Your task to perform on an android device: Search for sushi restaurants on Maps Image 0: 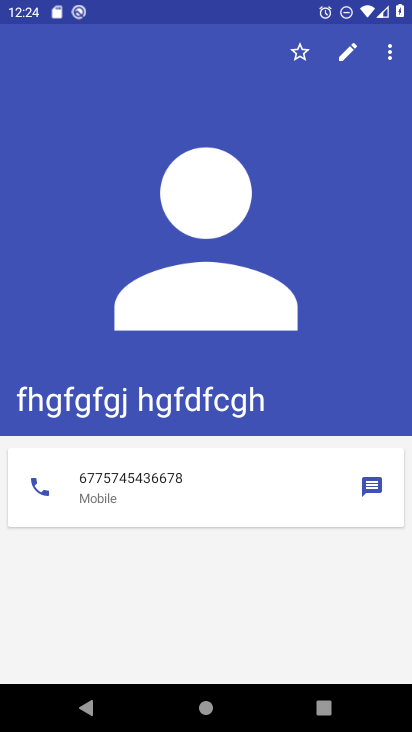
Step 0: press home button
Your task to perform on an android device: Search for sushi restaurants on Maps Image 1: 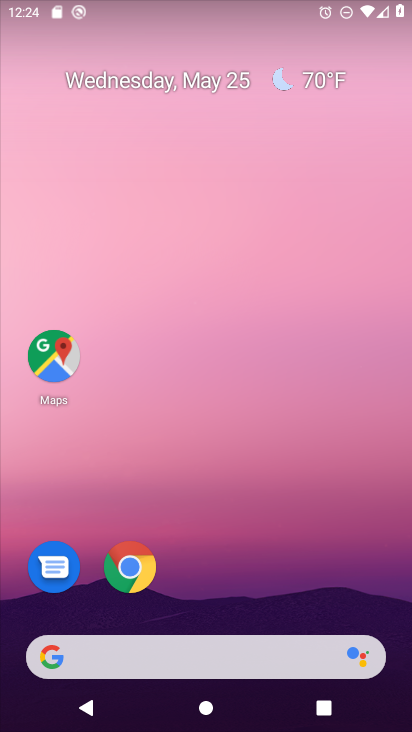
Step 1: click (59, 341)
Your task to perform on an android device: Search for sushi restaurants on Maps Image 2: 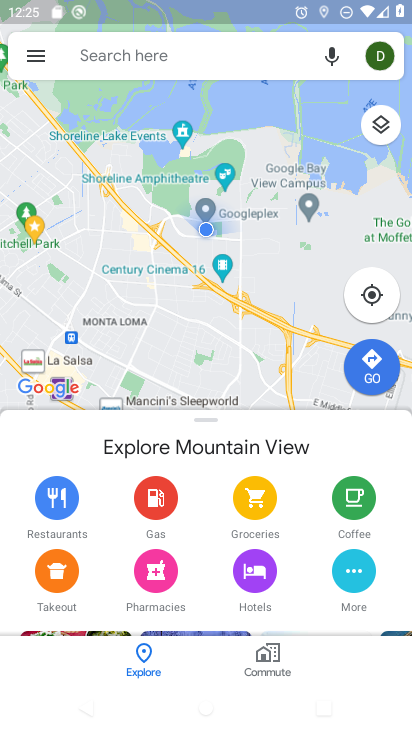
Step 2: click (152, 43)
Your task to perform on an android device: Search for sushi restaurants on Maps Image 3: 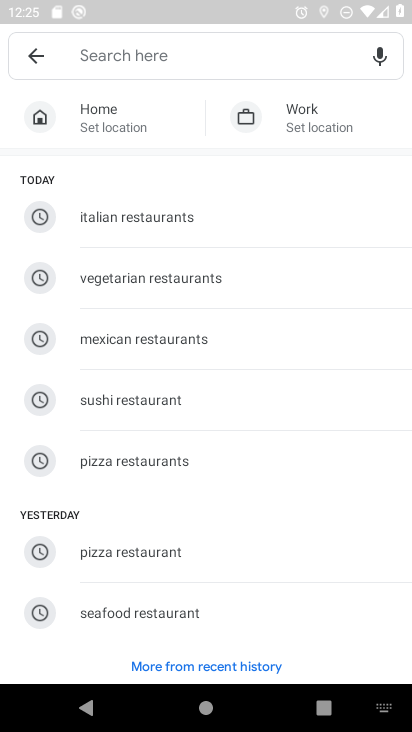
Step 3: type "sushi restaurants"
Your task to perform on an android device: Search for sushi restaurants on Maps Image 4: 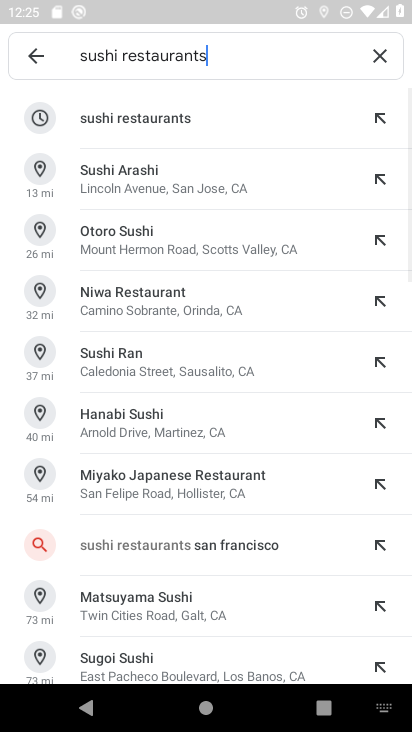
Step 4: click (161, 112)
Your task to perform on an android device: Search for sushi restaurants on Maps Image 5: 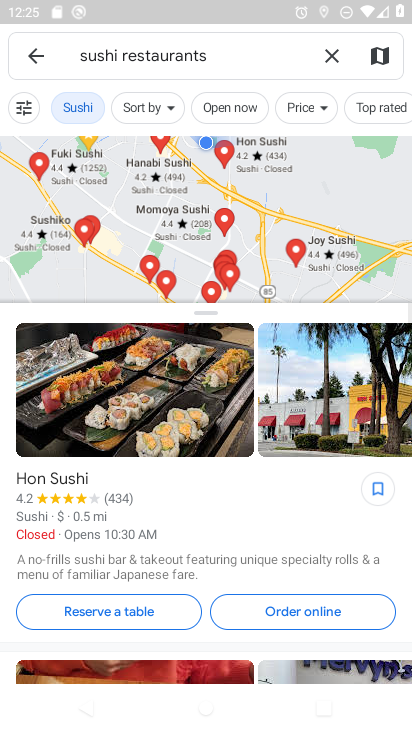
Step 5: task complete